Your task to perform on an android device: turn on javascript in the chrome app Image 0: 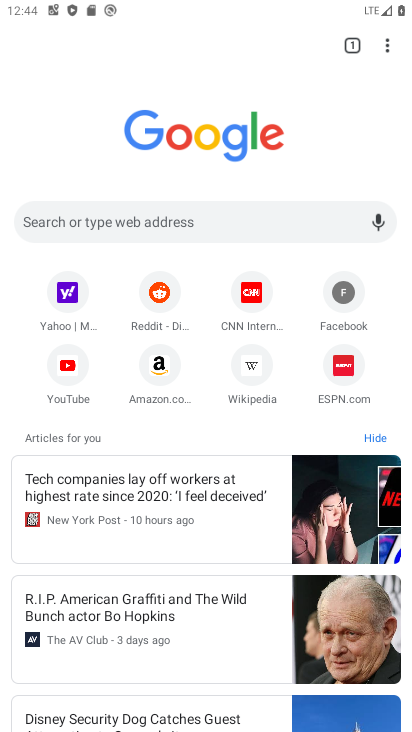
Step 0: press home button
Your task to perform on an android device: turn on javascript in the chrome app Image 1: 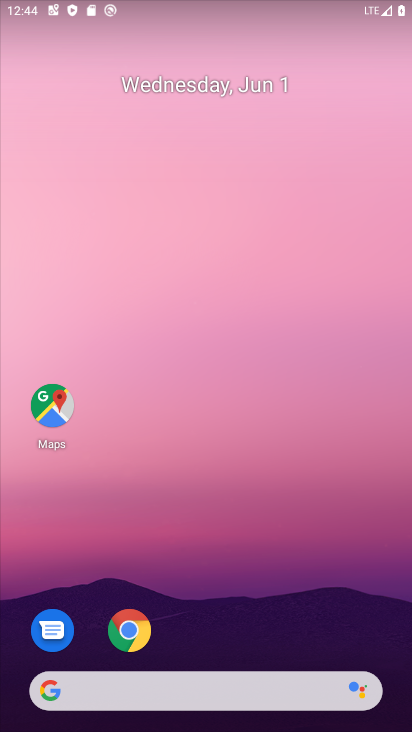
Step 1: click (137, 637)
Your task to perform on an android device: turn on javascript in the chrome app Image 2: 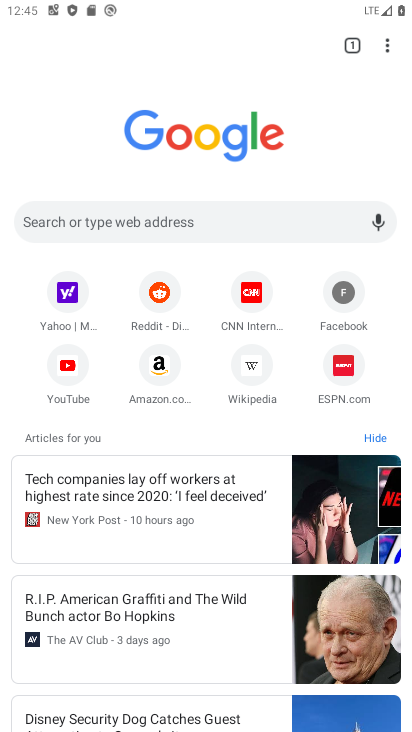
Step 2: drag from (390, 42) to (258, 385)
Your task to perform on an android device: turn on javascript in the chrome app Image 3: 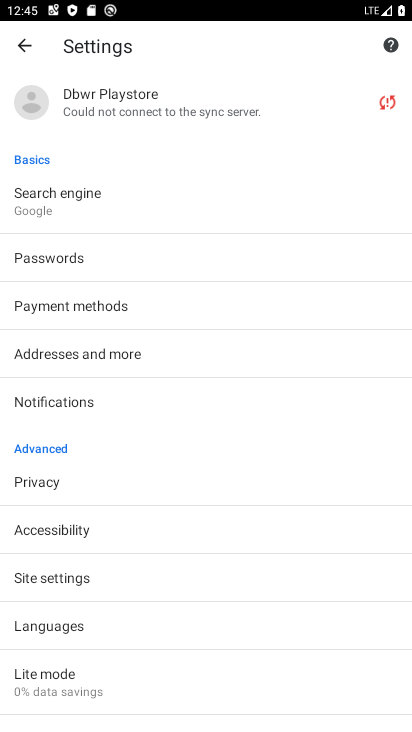
Step 3: click (150, 577)
Your task to perform on an android device: turn on javascript in the chrome app Image 4: 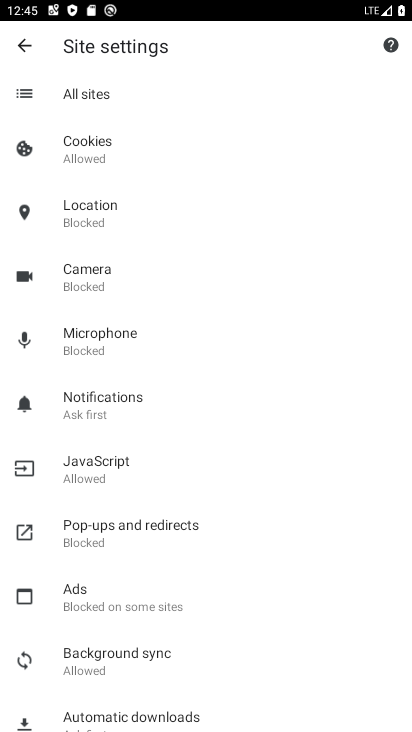
Step 4: click (122, 476)
Your task to perform on an android device: turn on javascript in the chrome app Image 5: 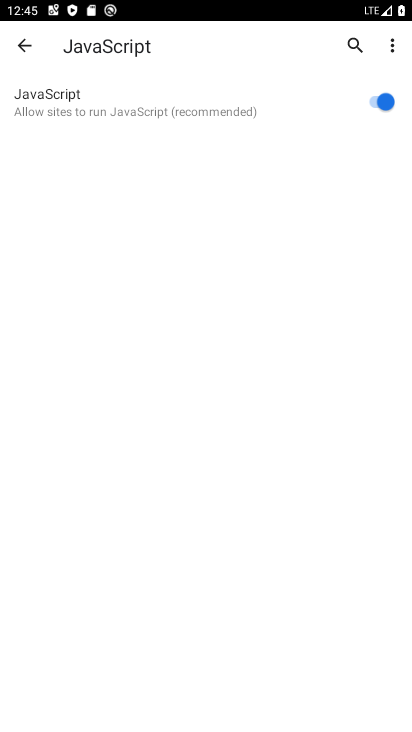
Step 5: task complete